Your task to perform on an android device: turn on priority inbox in the gmail app Image 0: 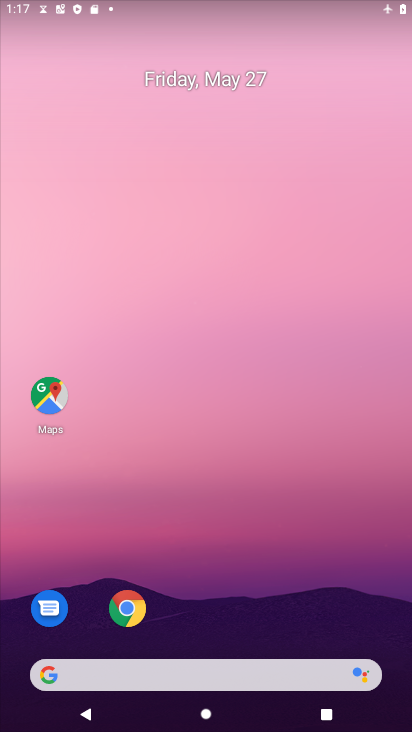
Step 0: drag from (197, 618) to (284, 30)
Your task to perform on an android device: turn on priority inbox in the gmail app Image 1: 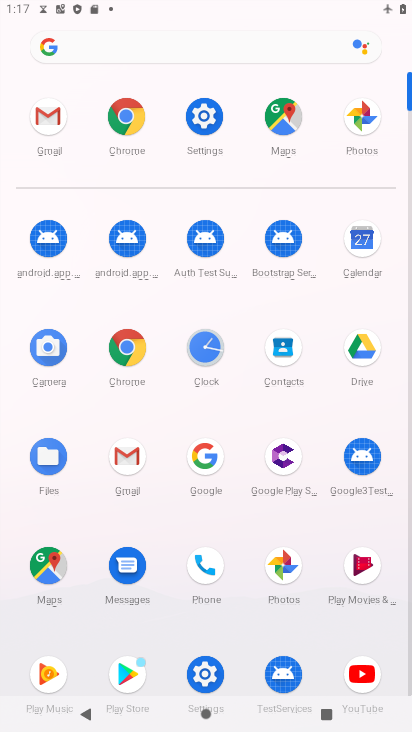
Step 1: click (47, 120)
Your task to perform on an android device: turn on priority inbox in the gmail app Image 2: 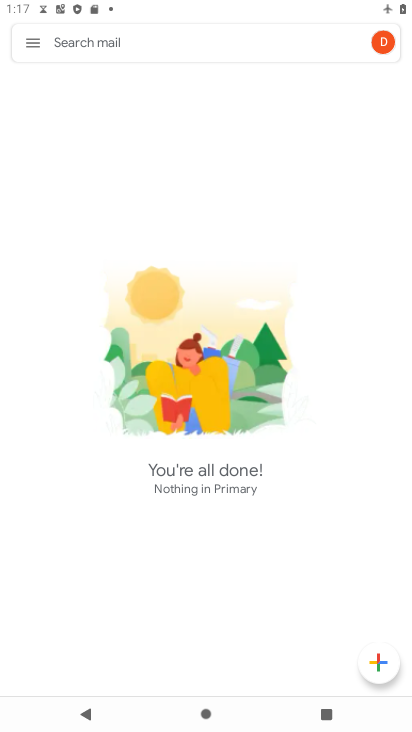
Step 2: click (30, 38)
Your task to perform on an android device: turn on priority inbox in the gmail app Image 3: 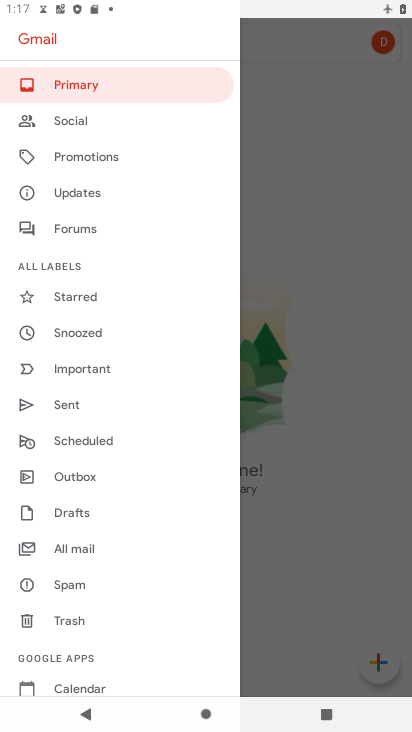
Step 3: drag from (101, 633) to (147, 132)
Your task to perform on an android device: turn on priority inbox in the gmail app Image 4: 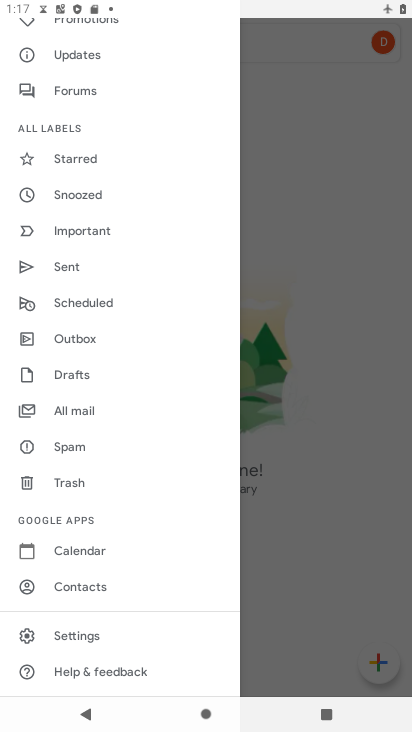
Step 4: click (102, 636)
Your task to perform on an android device: turn on priority inbox in the gmail app Image 5: 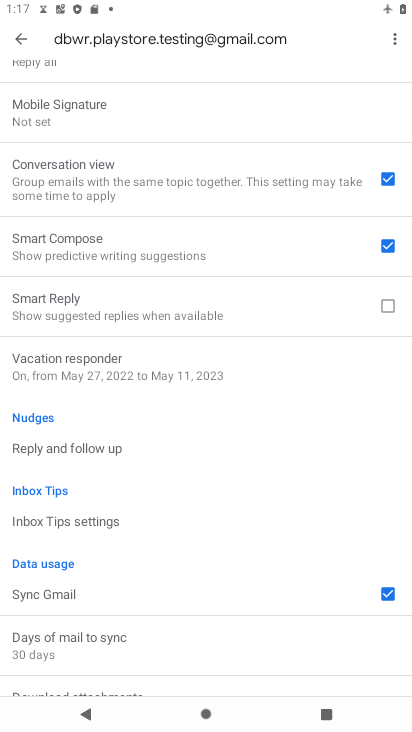
Step 5: drag from (146, 127) to (152, 723)
Your task to perform on an android device: turn on priority inbox in the gmail app Image 6: 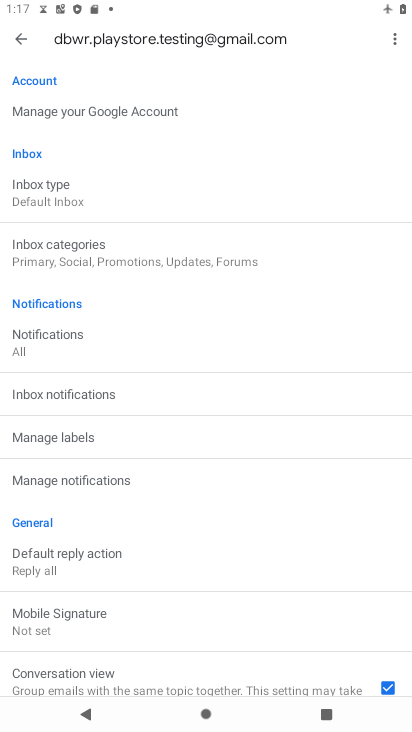
Step 6: drag from (173, 297) to (124, 651)
Your task to perform on an android device: turn on priority inbox in the gmail app Image 7: 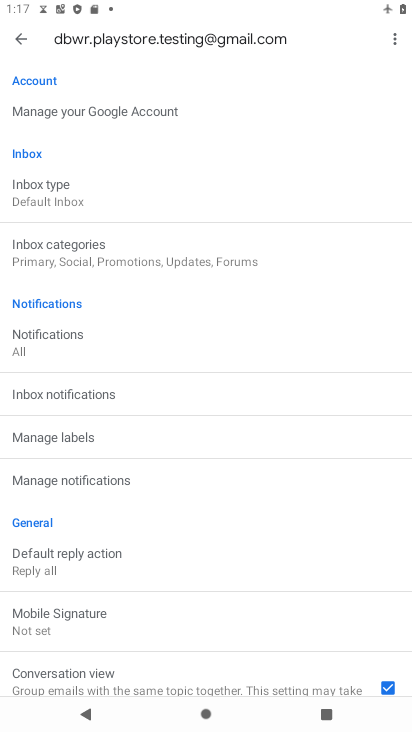
Step 7: click (77, 191)
Your task to perform on an android device: turn on priority inbox in the gmail app Image 8: 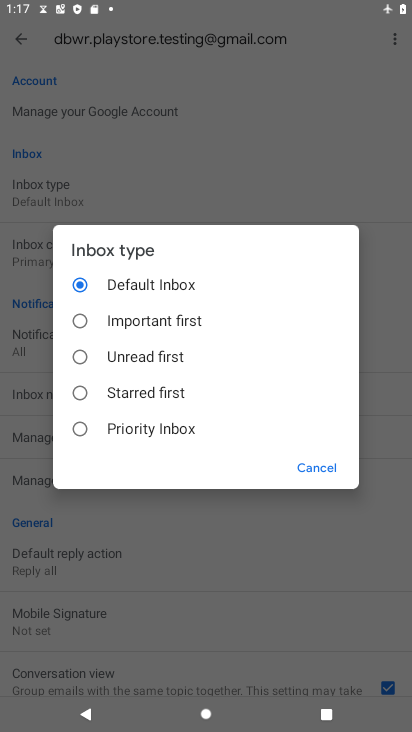
Step 8: click (87, 418)
Your task to perform on an android device: turn on priority inbox in the gmail app Image 9: 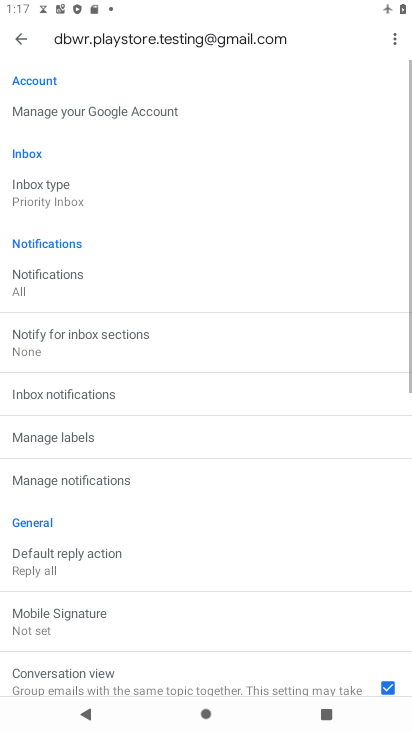
Step 9: task complete